Your task to perform on an android device: Go to wifi settings Image 0: 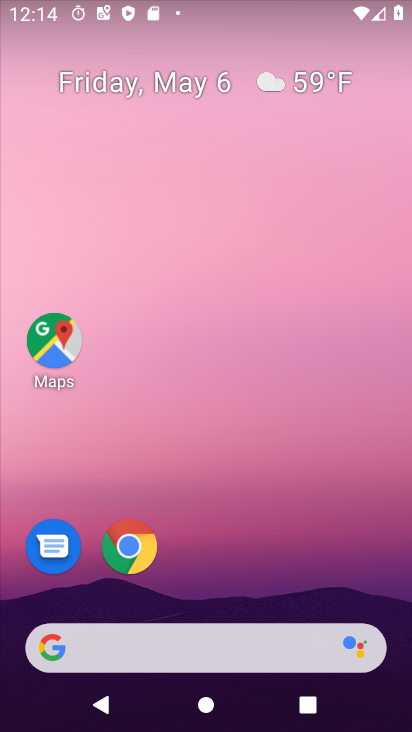
Step 0: click (128, 542)
Your task to perform on an android device: Go to wifi settings Image 1: 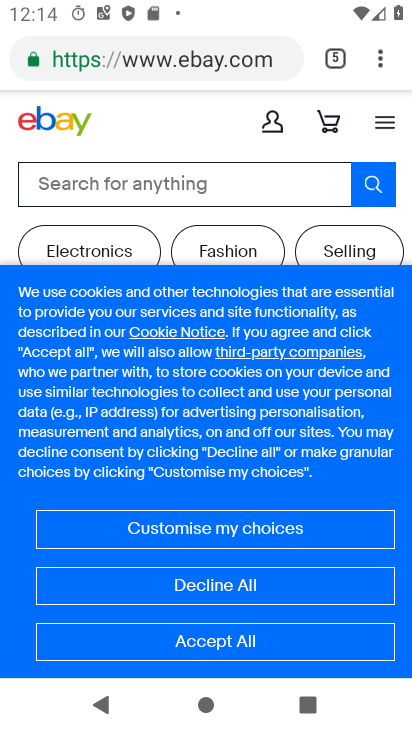
Step 1: click (341, 55)
Your task to perform on an android device: Go to wifi settings Image 2: 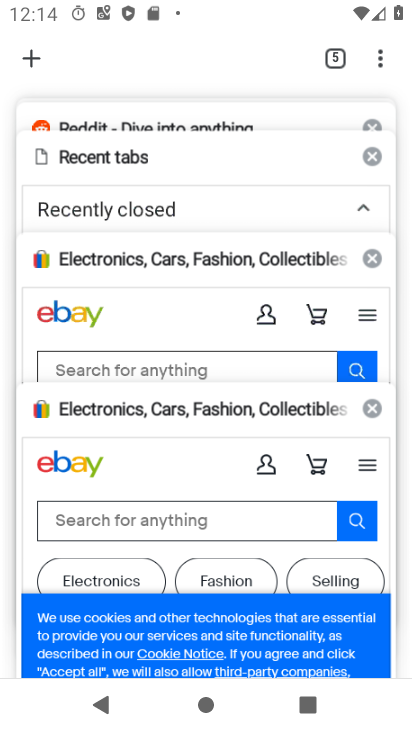
Step 2: click (33, 55)
Your task to perform on an android device: Go to wifi settings Image 3: 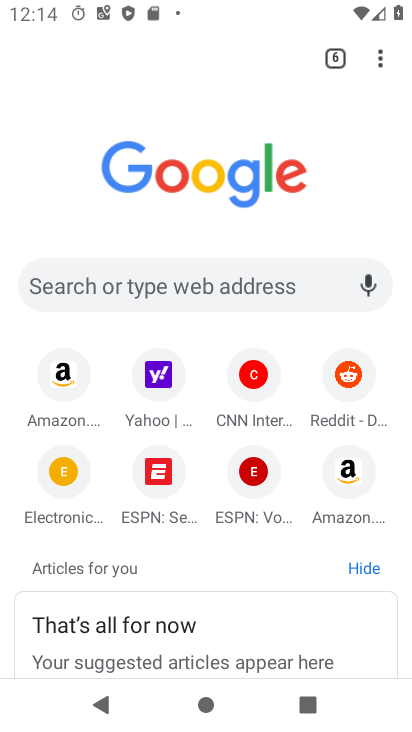
Step 3: click (69, 383)
Your task to perform on an android device: Go to wifi settings Image 4: 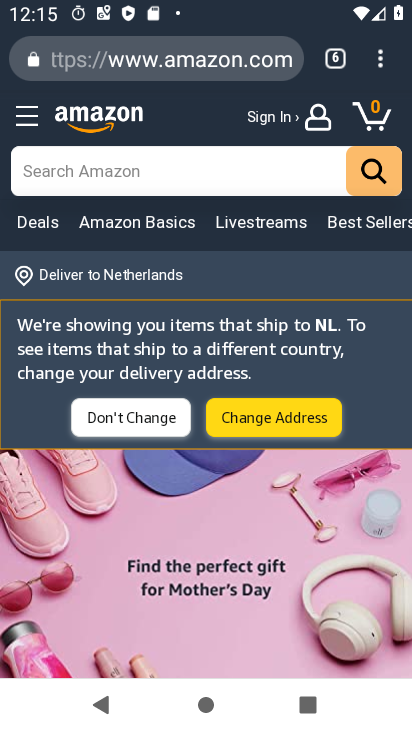
Step 4: press home button
Your task to perform on an android device: Go to wifi settings Image 5: 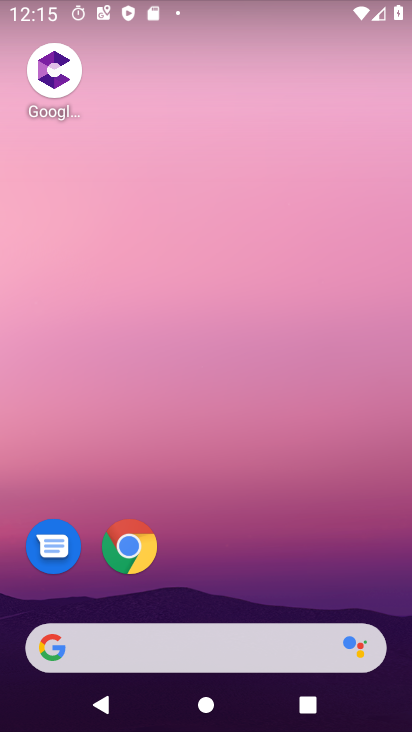
Step 5: drag from (303, 558) to (310, 198)
Your task to perform on an android device: Go to wifi settings Image 6: 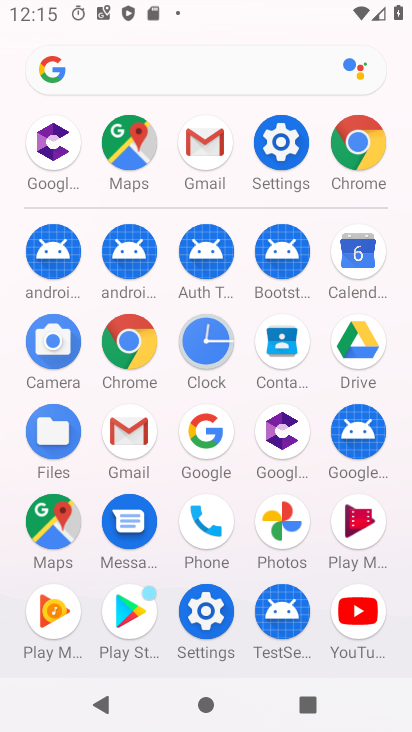
Step 6: click (289, 137)
Your task to perform on an android device: Go to wifi settings Image 7: 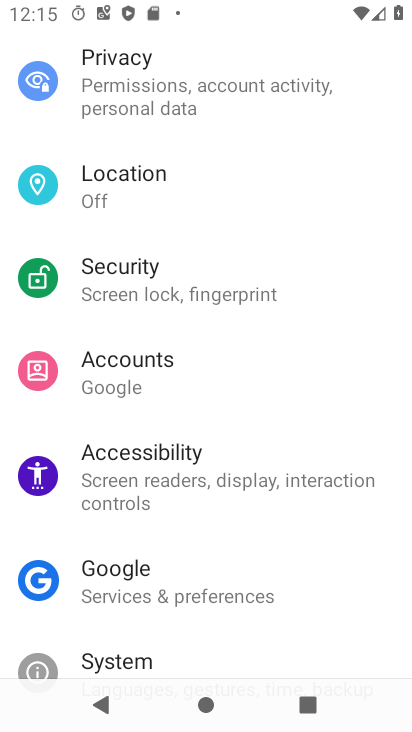
Step 7: drag from (280, 156) to (294, 490)
Your task to perform on an android device: Go to wifi settings Image 8: 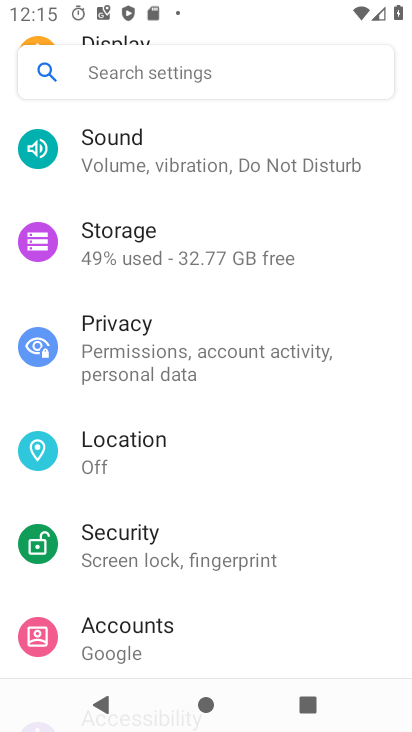
Step 8: drag from (295, 230) to (285, 524)
Your task to perform on an android device: Go to wifi settings Image 9: 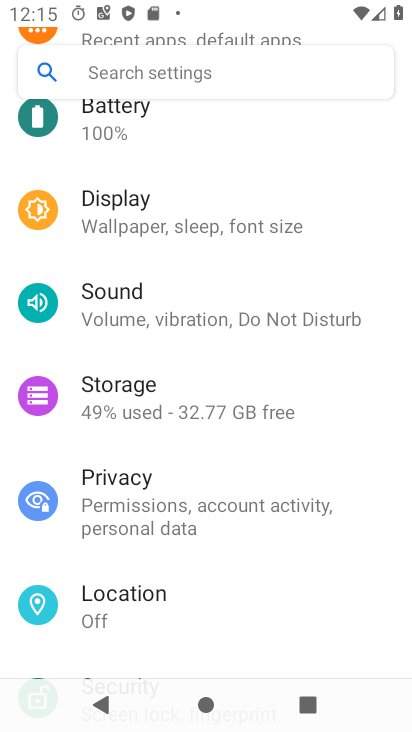
Step 9: drag from (243, 165) to (258, 464)
Your task to perform on an android device: Go to wifi settings Image 10: 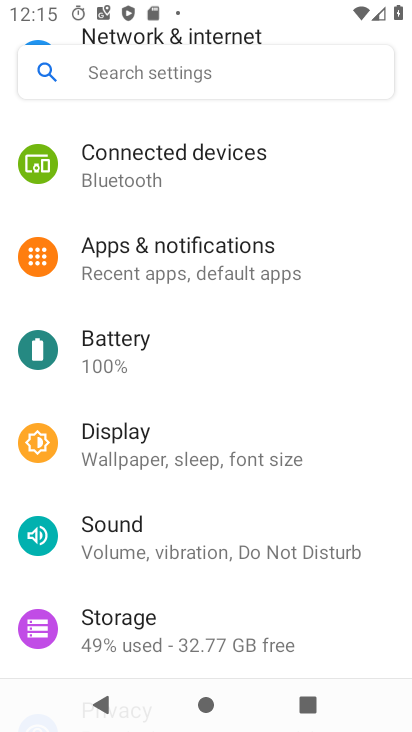
Step 10: drag from (242, 176) to (251, 506)
Your task to perform on an android device: Go to wifi settings Image 11: 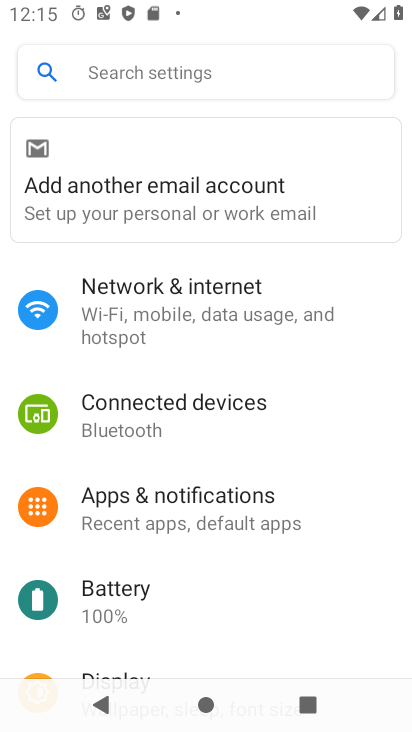
Step 11: click (214, 310)
Your task to perform on an android device: Go to wifi settings Image 12: 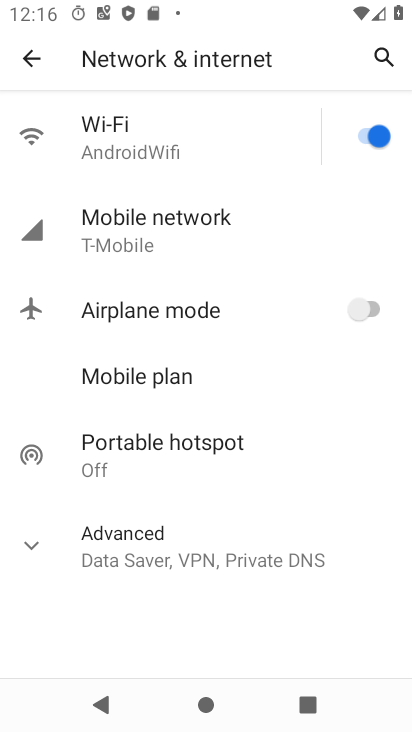
Step 12: click (145, 145)
Your task to perform on an android device: Go to wifi settings Image 13: 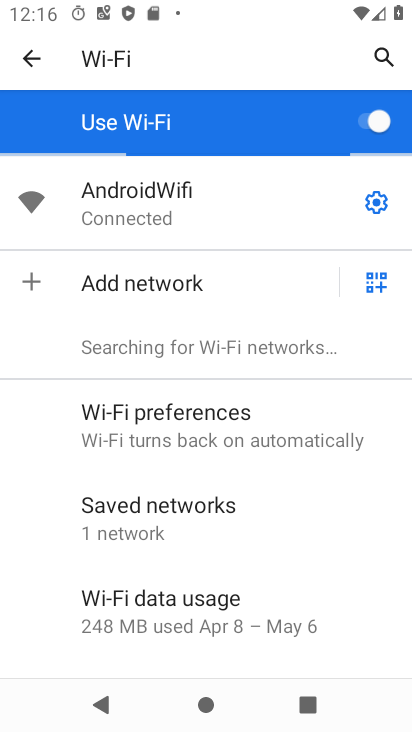
Step 13: task complete